Your task to perform on an android device: check out phone information Image 0: 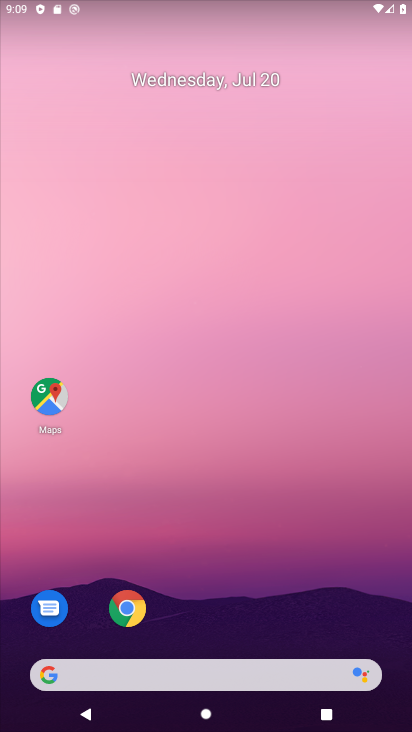
Step 0: drag from (298, 626) to (212, 144)
Your task to perform on an android device: check out phone information Image 1: 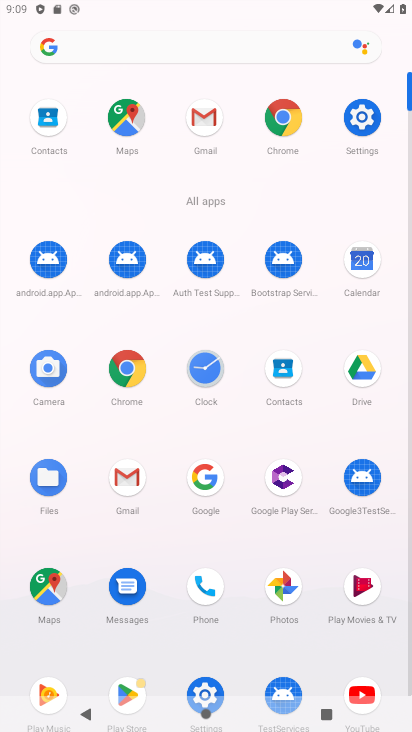
Step 1: click (379, 124)
Your task to perform on an android device: check out phone information Image 2: 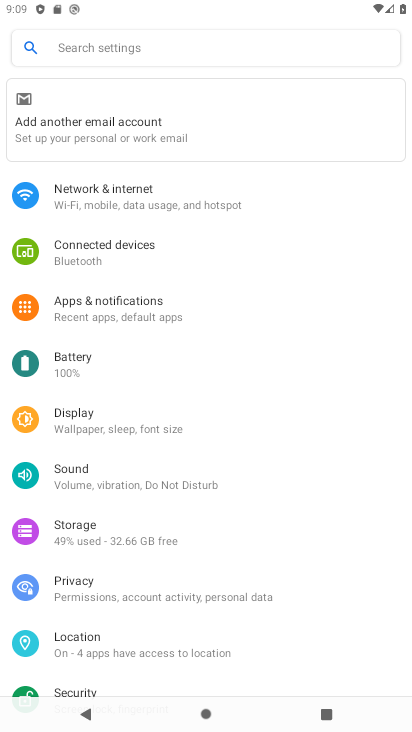
Step 2: drag from (219, 633) to (151, 227)
Your task to perform on an android device: check out phone information Image 3: 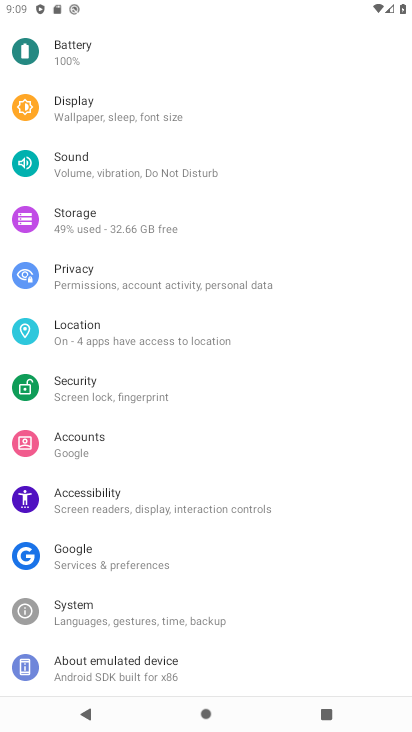
Step 3: click (128, 674)
Your task to perform on an android device: check out phone information Image 4: 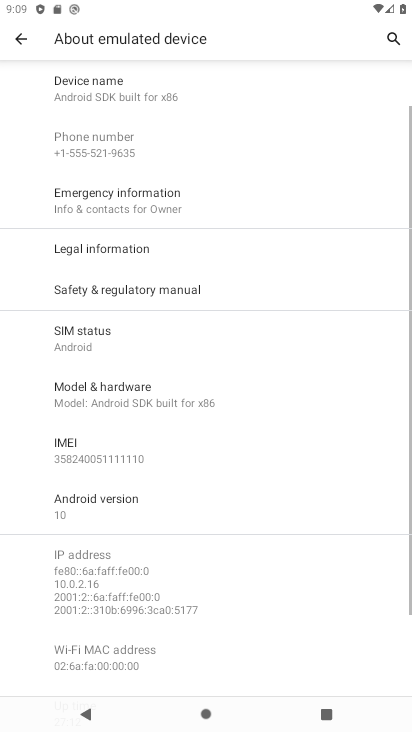
Step 4: task complete